Your task to perform on an android device: Do I have any events today? Image 0: 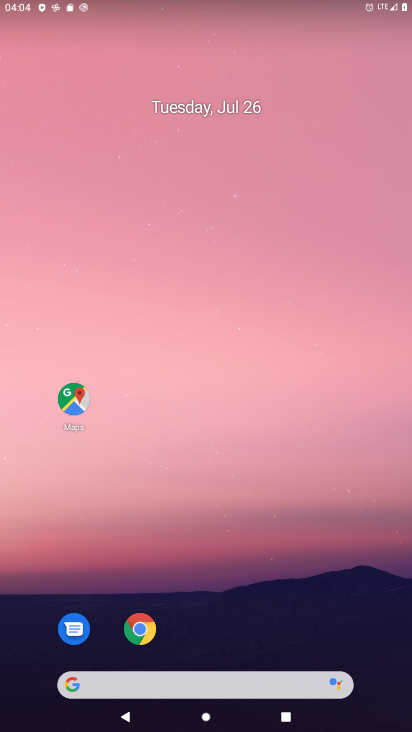
Step 0: drag from (232, 618) to (297, 54)
Your task to perform on an android device: Do I have any events today? Image 1: 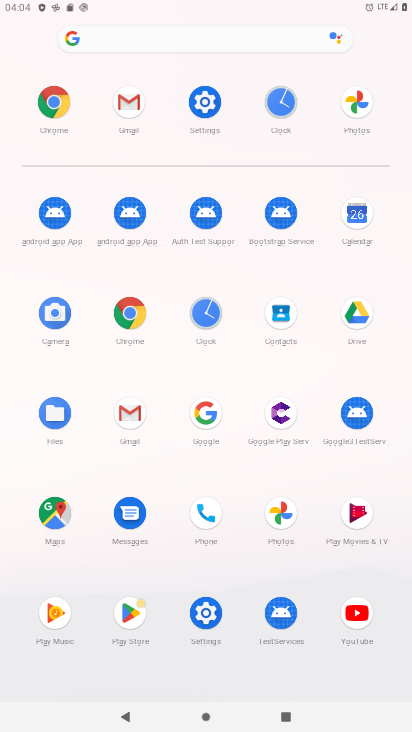
Step 1: click (360, 213)
Your task to perform on an android device: Do I have any events today? Image 2: 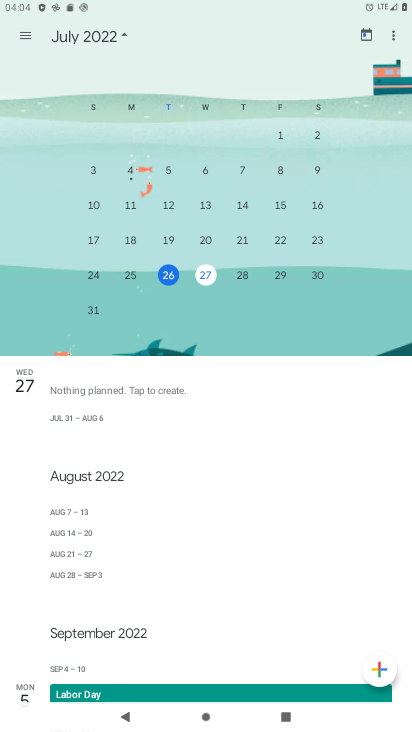
Step 2: drag from (382, 217) to (59, 226)
Your task to perform on an android device: Do I have any events today? Image 3: 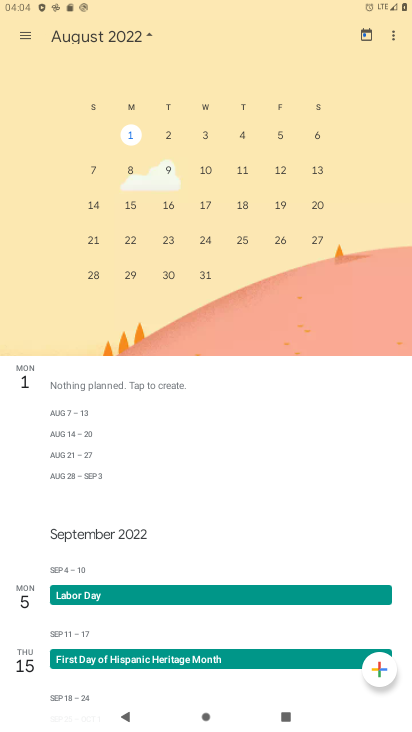
Step 3: drag from (70, 185) to (381, 202)
Your task to perform on an android device: Do I have any events today? Image 4: 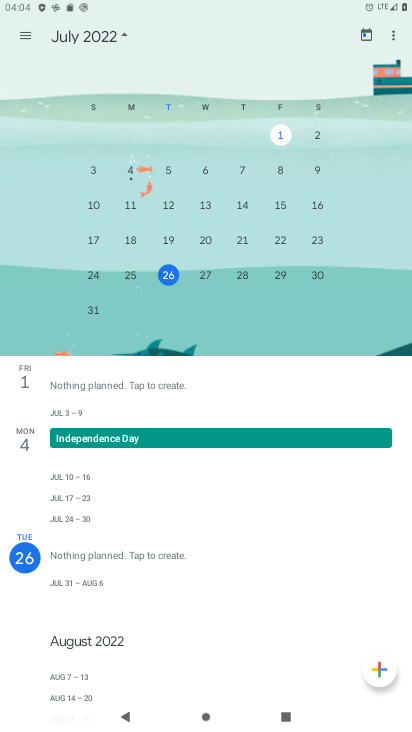
Step 4: click (172, 276)
Your task to perform on an android device: Do I have any events today? Image 5: 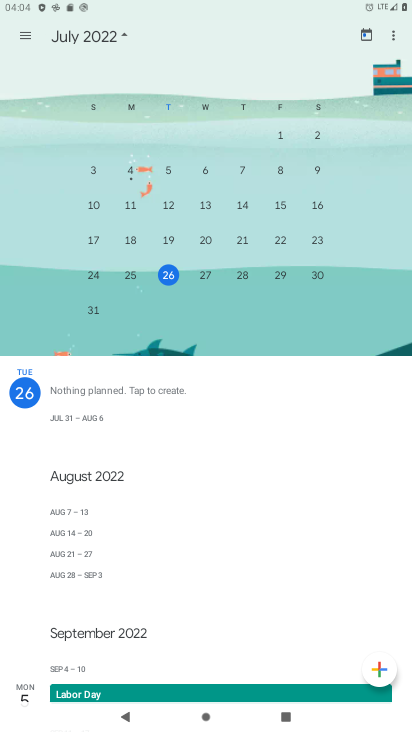
Step 5: task complete